Your task to perform on an android device: snooze an email in the gmail app Image 0: 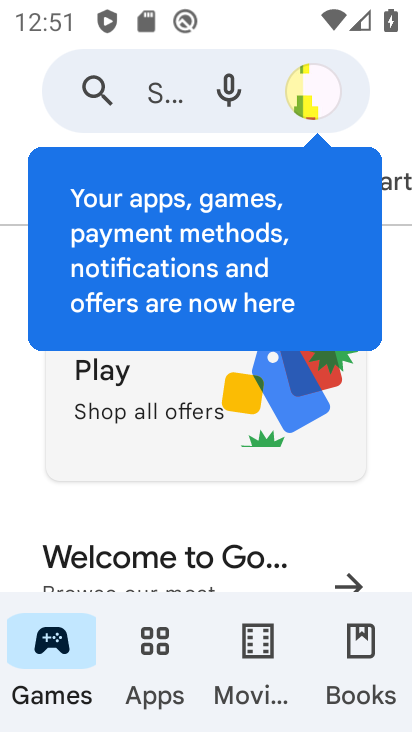
Step 0: press home button
Your task to perform on an android device: snooze an email in the gmail app Image 1: 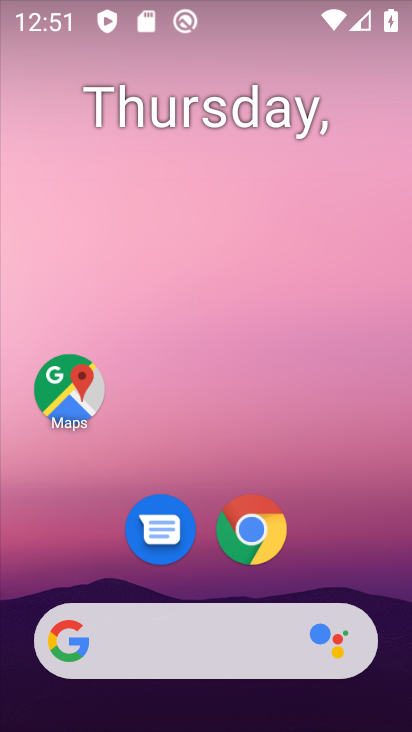
Step 1: drag from (338, 494) to (344, 190)
Your task to perform on an android device: snooze an email in the gmail app Image 2: 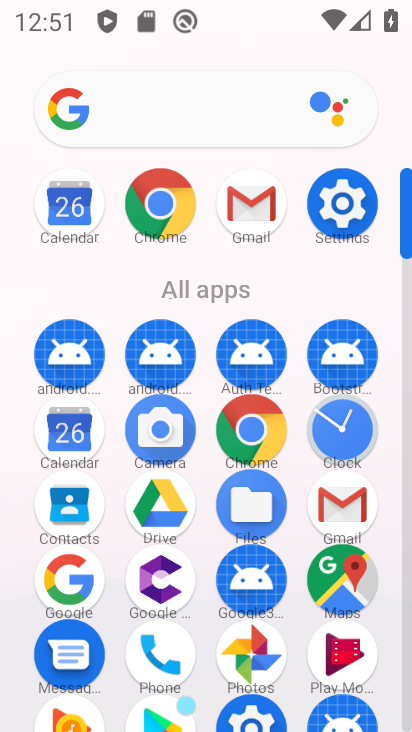
Step 2: click (342, 499)
Your task to perform on an android device: snooze an email in the gmail app Image 3: 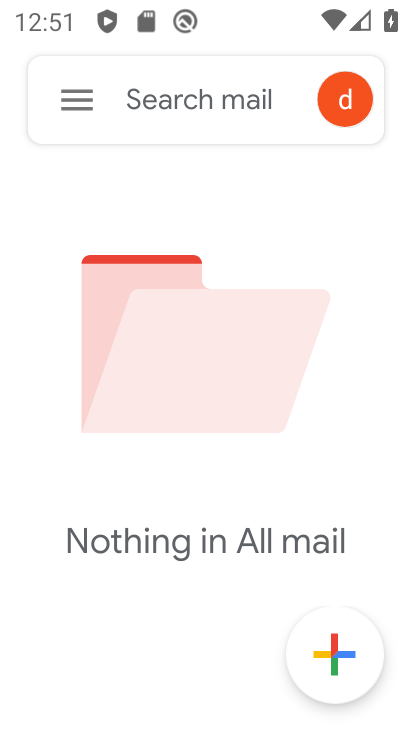
Step 3: click (74, 111)
Your task to perform on an android device: snooze an email in the gmail app Image 4: 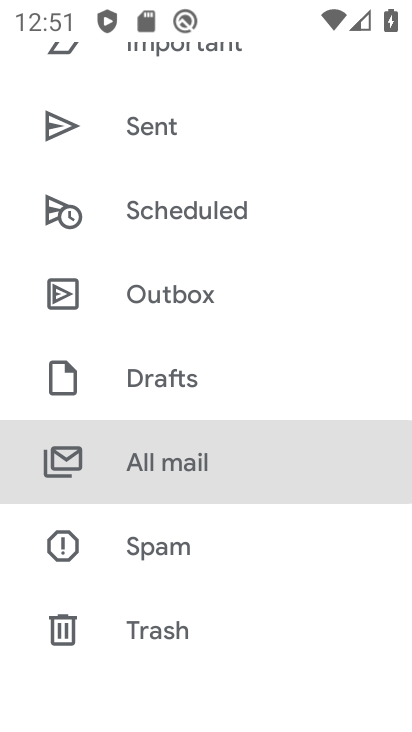
Step 4: drag from (168, 190) to (160, 476)
Your task to perform on an android device: snooze an email in the gmail app Image 5: 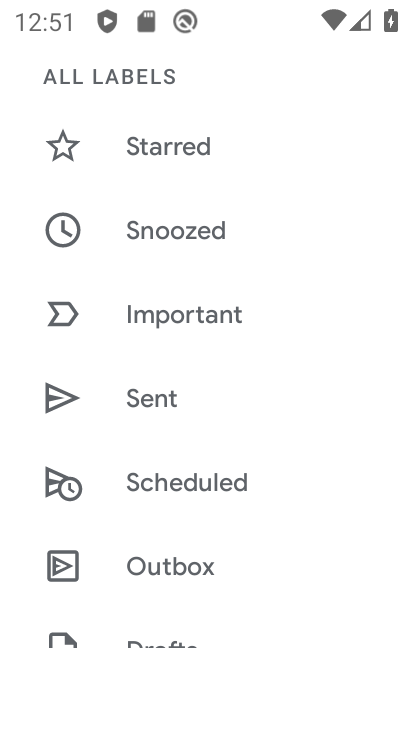
Step 5: click (157, 232)
Your task to perform on an android device: snooze an email in the gmail app Image 6: 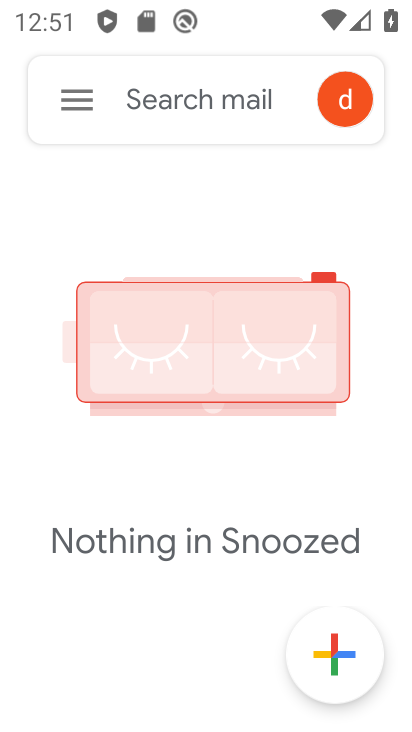
Step 6: task complete